Your task to perform on an android device: Go to Google maps Image 0: 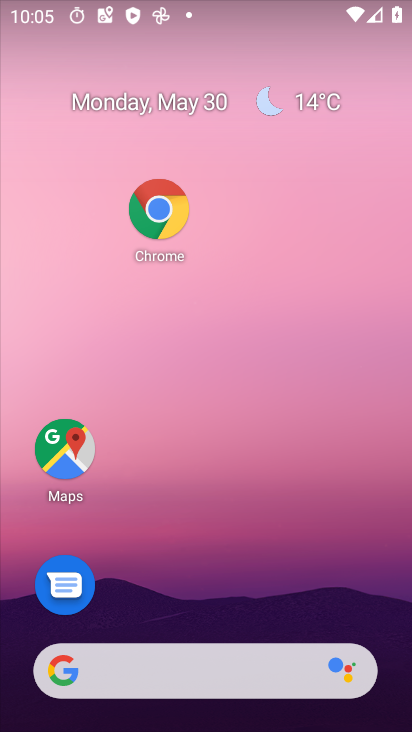
Step 0: drag from (266, 478) to (340, 18)
Your task to perform on an android device: Go to Google maps Image 1: 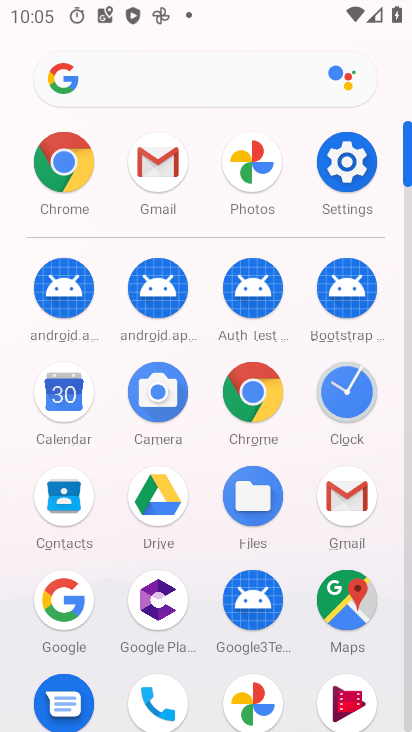
Step 1: click (358, 601)
Your task to perform on an android device: Go to Google maps Image 2: 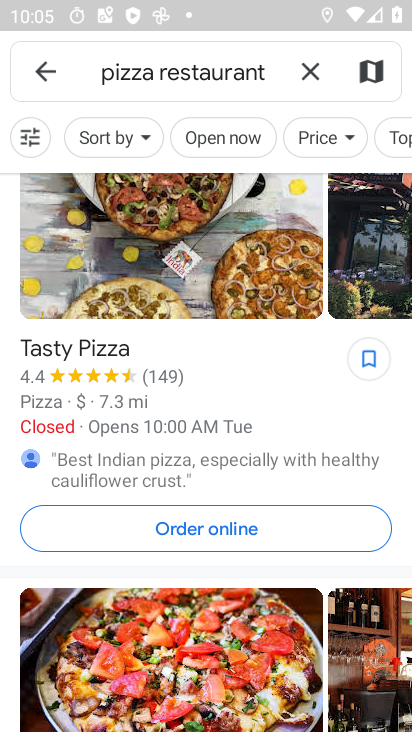
Step 2: task complete